Your task to perform on an android device: change timer sound Image 0: 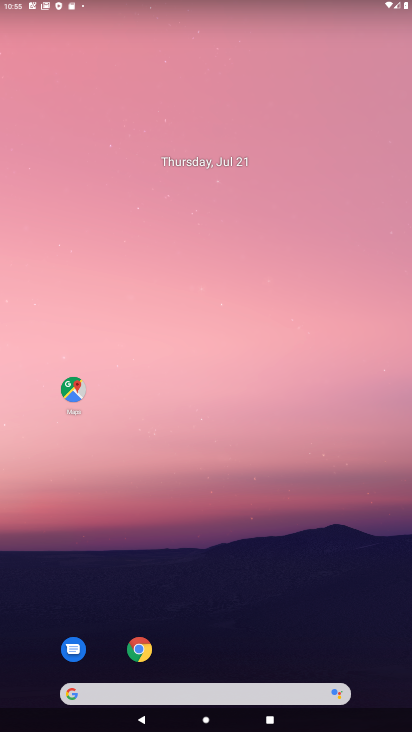
Step 0: drag from (264, 628) to (323, 23)
Your task to perform on an android device: change timer sound Image 1: 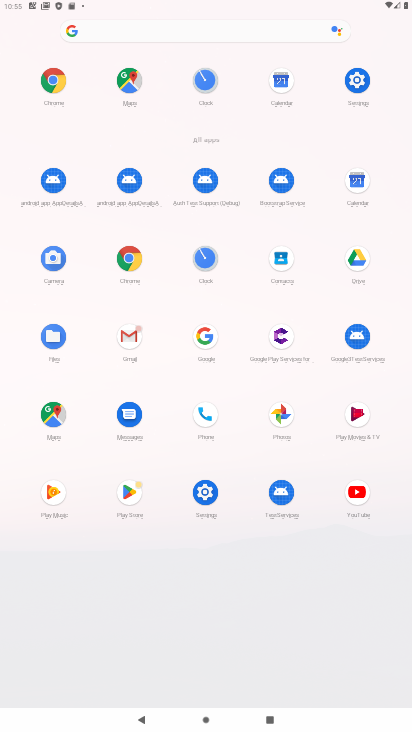
Step 1: click (198, 256)
Your task to perform on an android device: change timer sound Image 2: 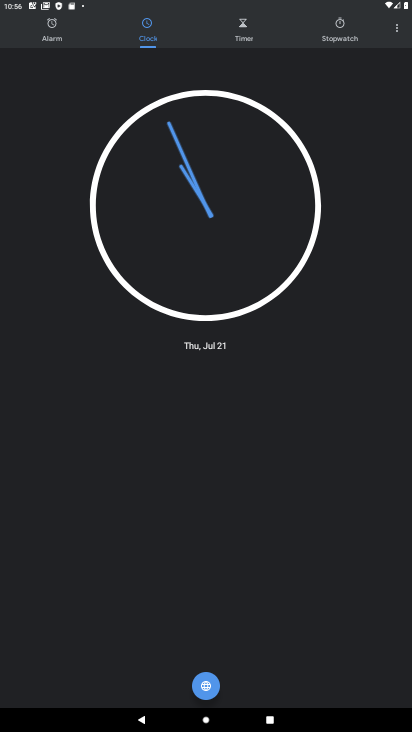
Step 2: click (392, 25)
Your task to perform on an android device: change timer sound Image 3: 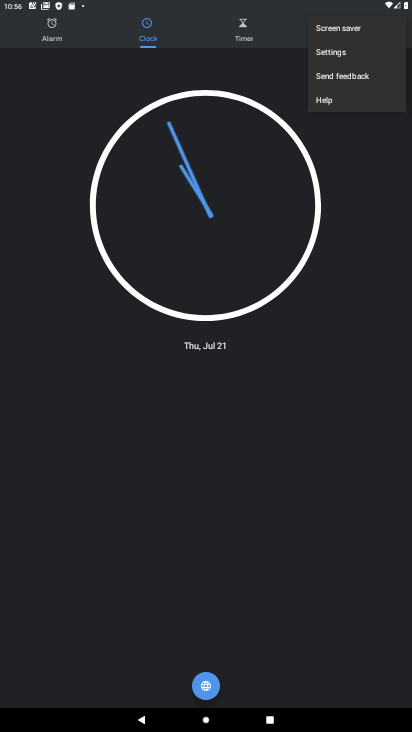
Step 3: click (335, 55)
Your task to perform on an android device: change timer sound Image 4: 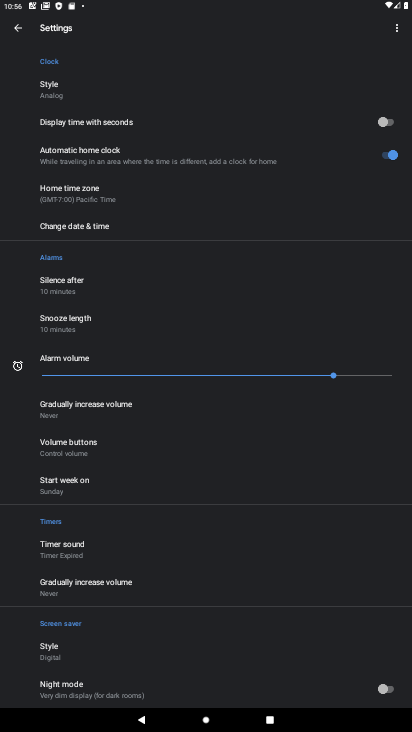
Step 4: click (73, 553)
Your task to perform on an android device: change timer sound Image 5: 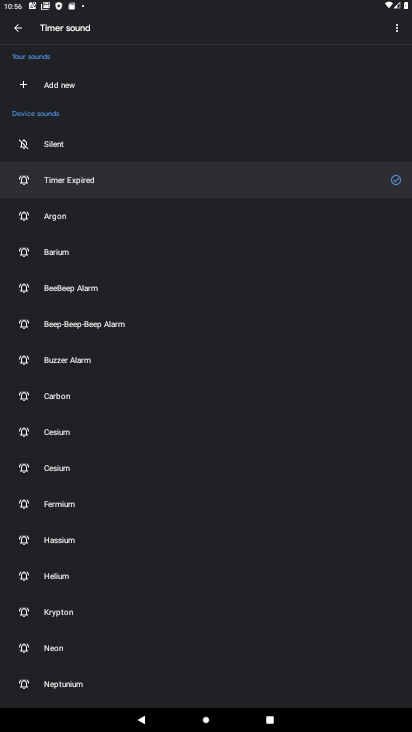
Step 5: click (81, 509)
Your task to perform on an android device: change timer sound Image 6: 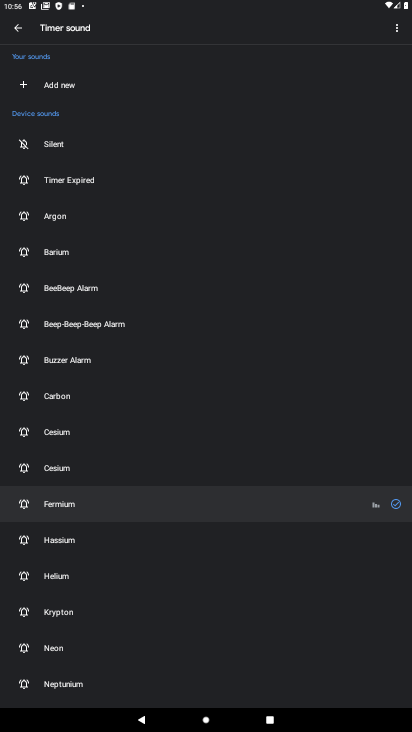
Step 6: task complete